Your task to perform on an android device: toggle notification dots Image 0: 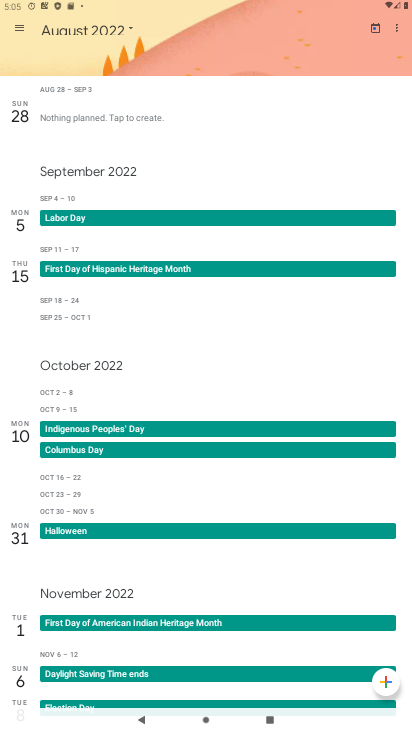
Step 0: press home button
Your task to perform on an android device: toggle notification dots Image 1: 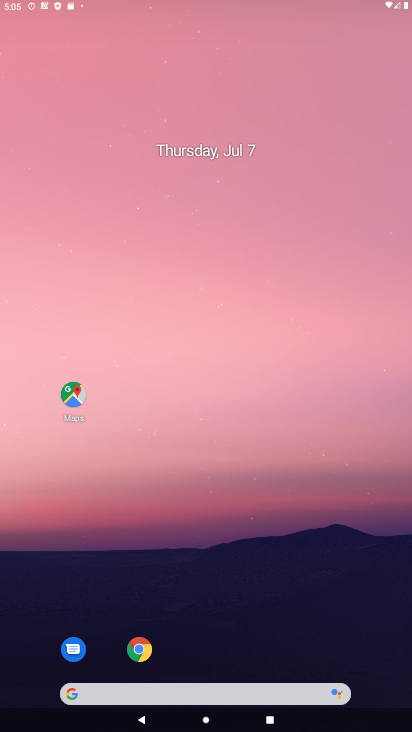
Step 1: drag from (377, 645) to (226, 37)
Your task to perform on an android device: toggle notification dots Image 2: 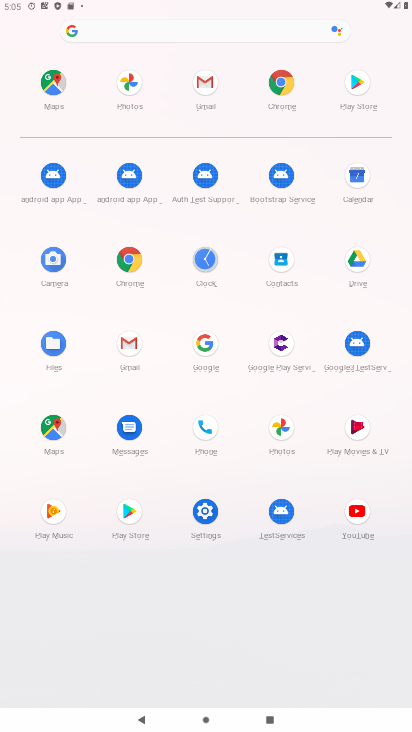
Step 2: click (208, 526)
Your task to perform on an android device: toggle notification dots Image 3: 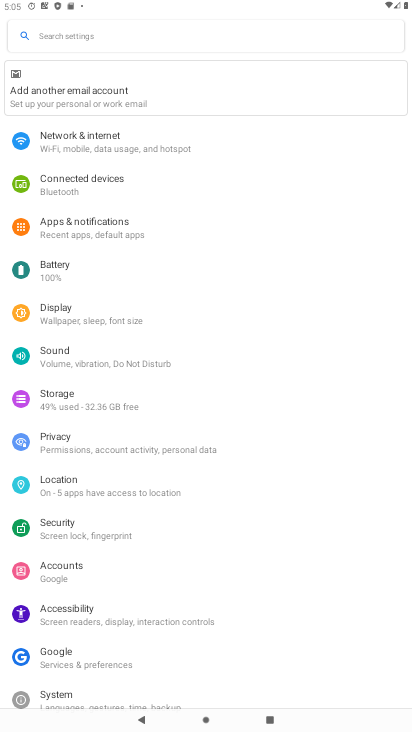
Step 3: click (118, 223)
Your task to perform on an android device: toggle notification dots Image 4: 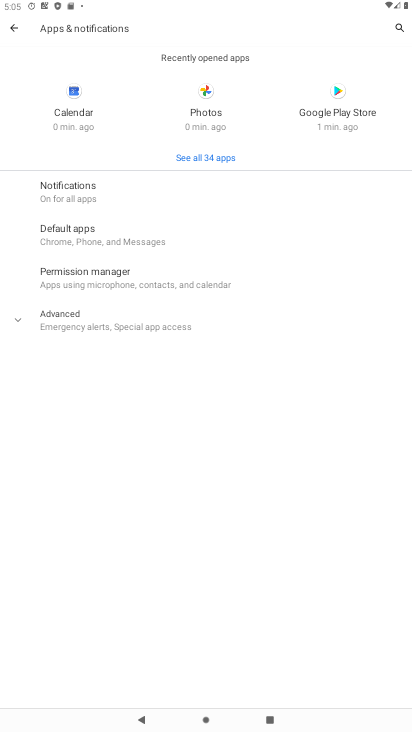
Step 4: click (120, 189)
Your task to perform on an android device: toggle notification dots Image 5: 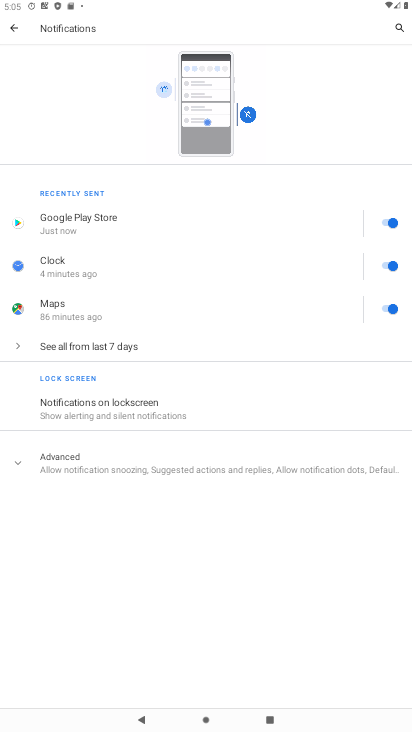
Step 5: click (50, 459)
Your task to perform on an android device: toggle notification dots Image 6: 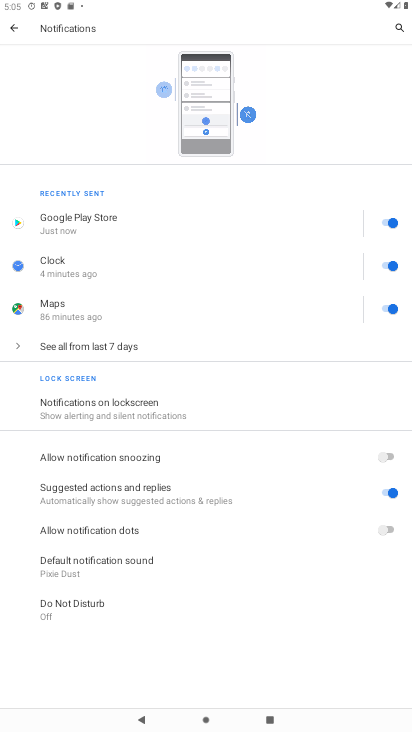
Step 6: click (372, 526)
Your task to perform on an android device: toggle notification dots Image 7: 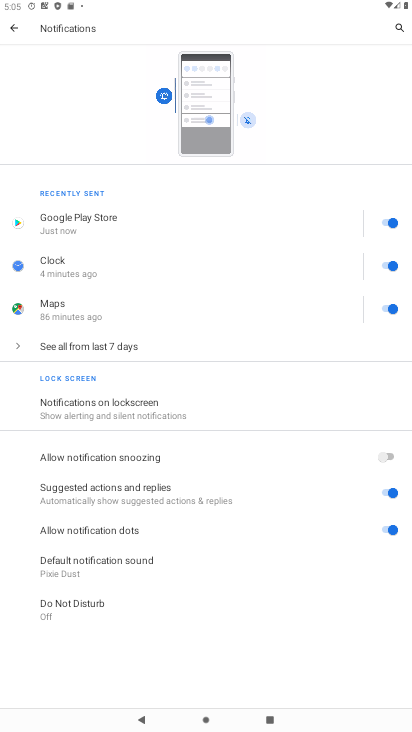
Step 7: task complete